Your task to perform on an android device: toggle data saver in the chrome app Image 0: 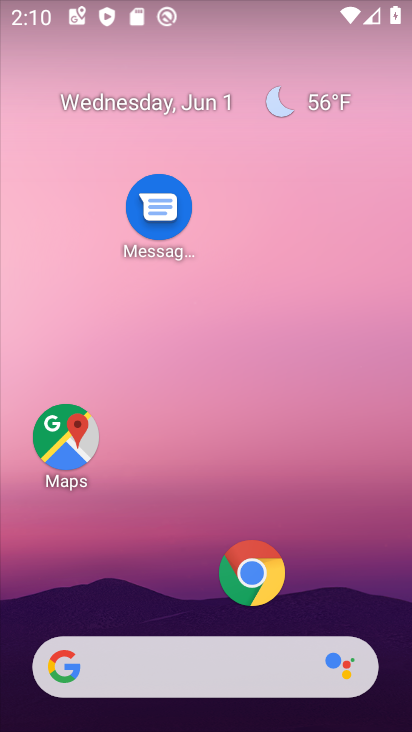
Step 0: drag from (143, 598) to (383, 94)
Your task to perform on an android device: toggle data saver in the chrome app Image 1: 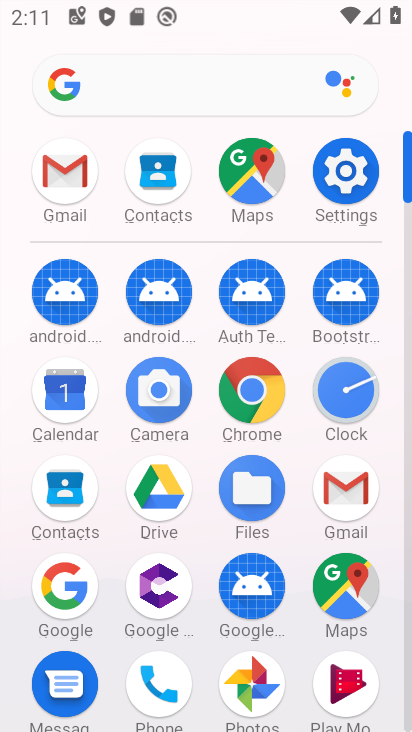
Step 1: click (241, 404)
Your task to perform on an android device: toggle data saver in the chrome app Image 2: 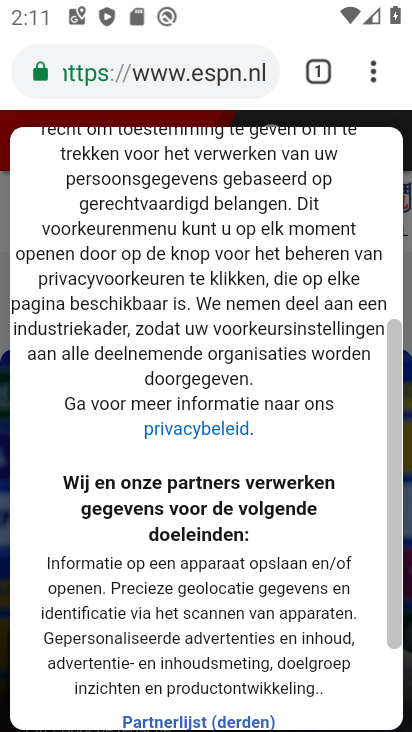
Step 2: drag from (355, 68) to (176, 595)
Your task to perform on an android device: toggle data saver in the chrome app Image 3: 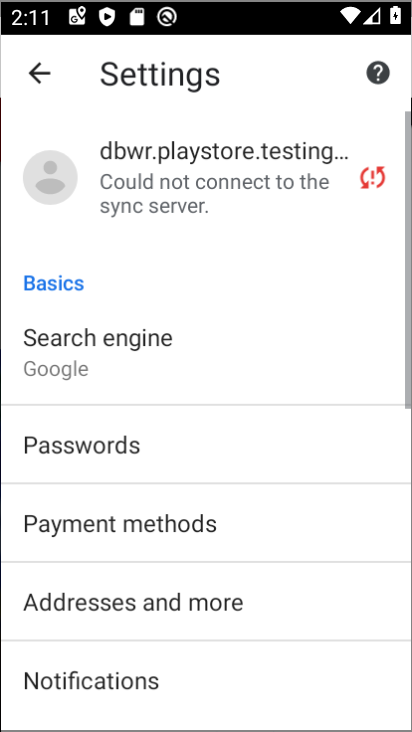
Step 3: drag from (167, 586) to (333, 63)
Your task to perform on an android device: toggle data saver in the chrome app Image 4: 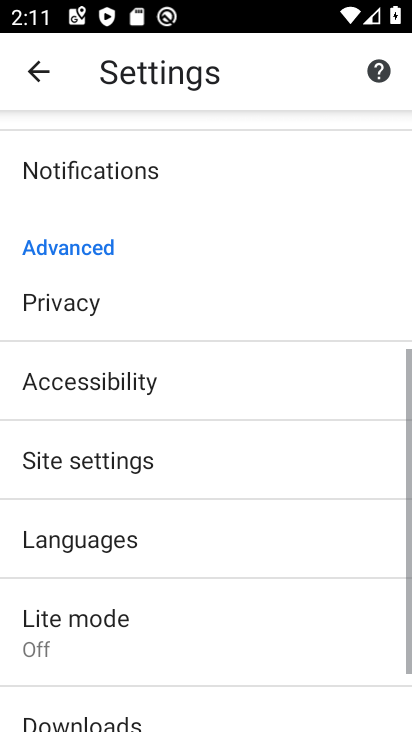
Step 4: click (134, 647)
Your task to perform on an android device: toggle data saver in the chrome app Image 5: 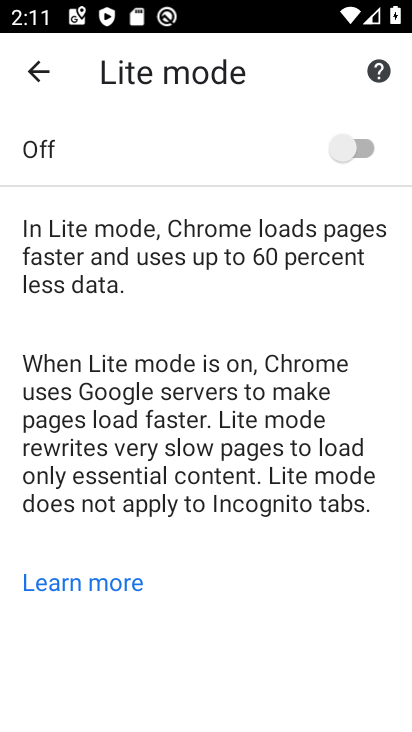
Step 5: drag from (147, 628) to (288, 202)
Your task to perform on an android device: toggle data saver in the chrome app Image 6: 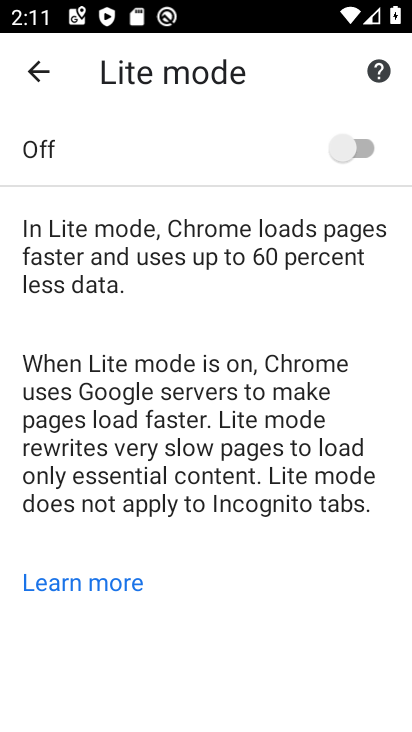
Step 6: click (331, 180)
Your task to perform on an android device: toggle data saver in the chrome app Image 7: 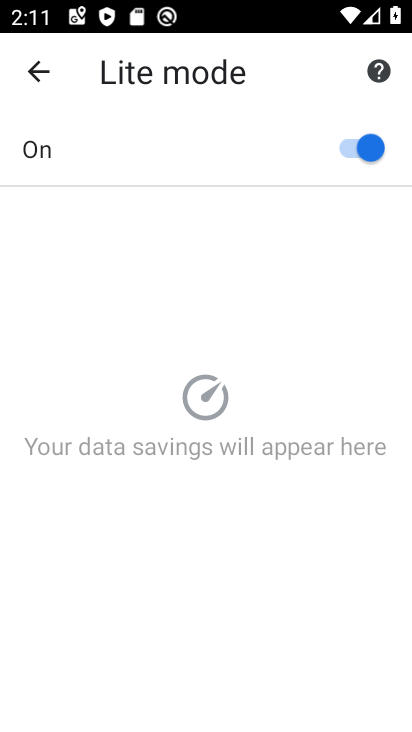
Step 7: task complete